Your task to perform on an android device: See recent photos Image 0: 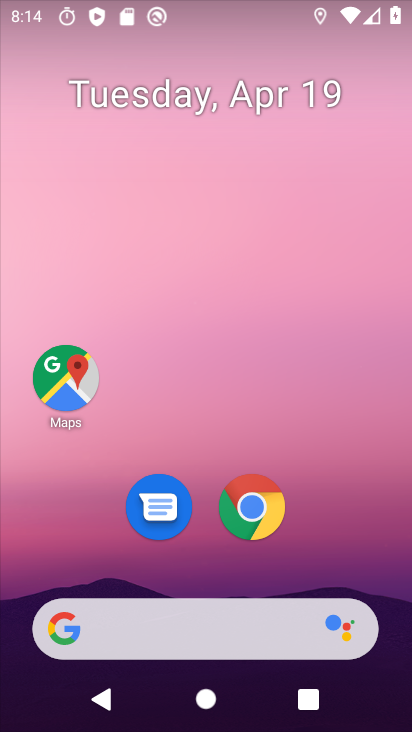
Step 0: drag from (343, 564) to (190, 98)
Your task to perform on an android device: See recent photos Image 1: 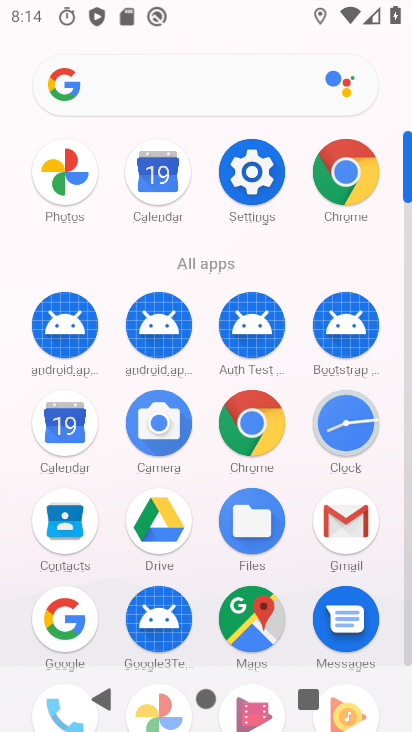
Step 1: click (75, 185)
Your task to perform on an android device: See recent photos Image 2: 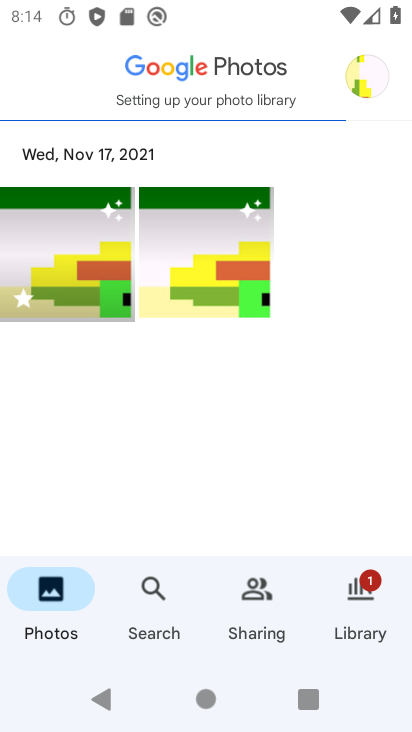
Step 2: task complete